Your task to perform on an android device: Is it going to rain this weekend? Image 0: 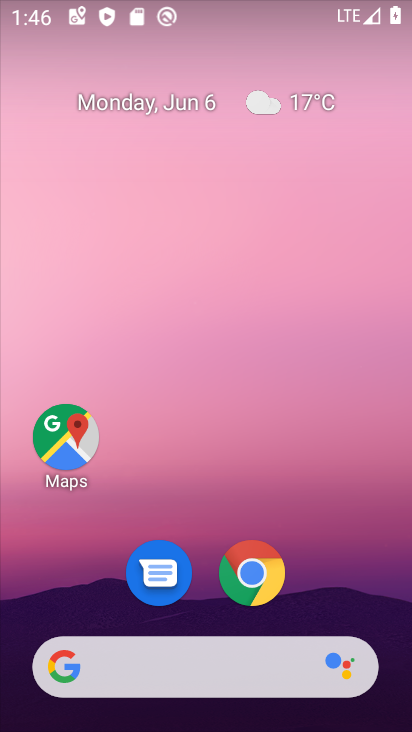
Step 0: click (287, 108)
Your task to perform on an android device: Is it going to rain this weekend? Image 1: 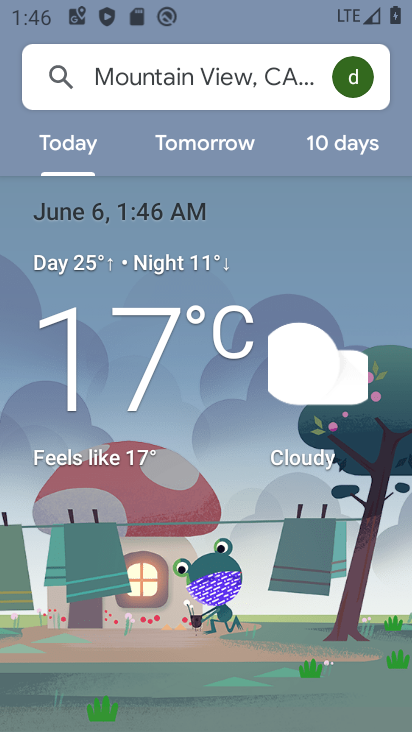
Step 1: click (340, 148)
Your task to perform on an android device: Is it going to rain this weekend? Image 2: 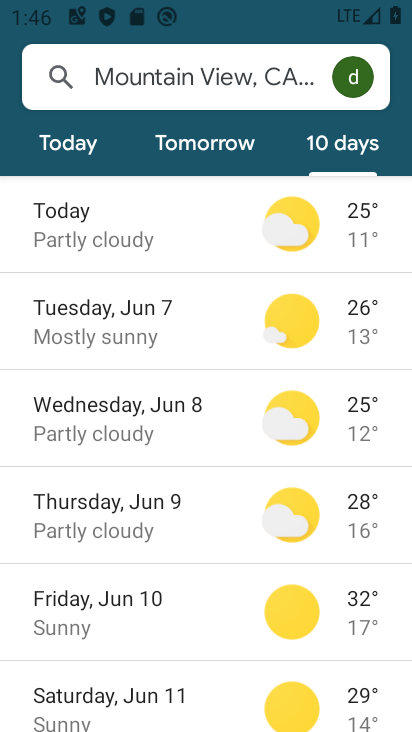
Step 2: drag from (230, 586) to (226, 336)
Your task to perform on an android device: Is it going to rain this weekend? Image 3: 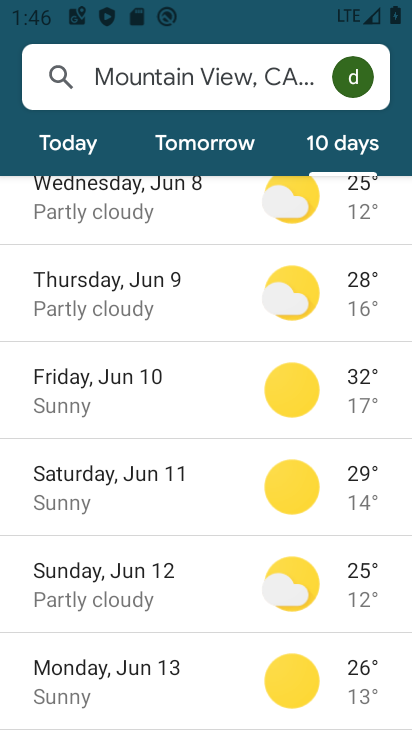
Step 3: click (96, 486)
Your task to perform on an android device: Is it going to rain this weekend? Image 4: 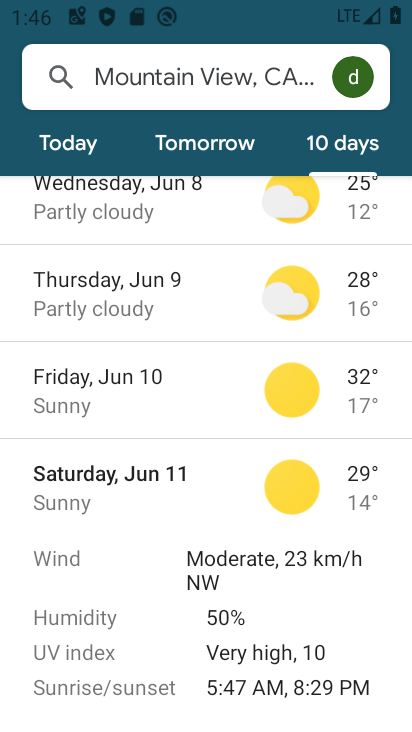
Step 4: task complete